Your task to perform on an android device: change text size in settings app Image 0: 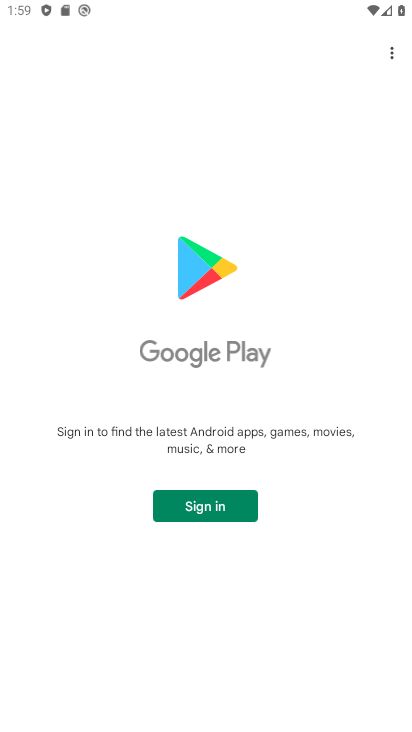
Step 0: press home button
Your task to perform on an android device: change text size in settings app Image 1: 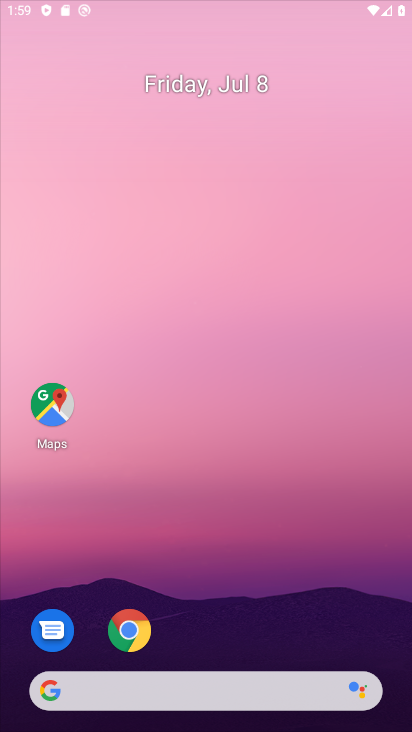
Step 1: drag from (354, 601) to (266, 117)
Your task to perform on an android device: change text size in settings app Image 2: 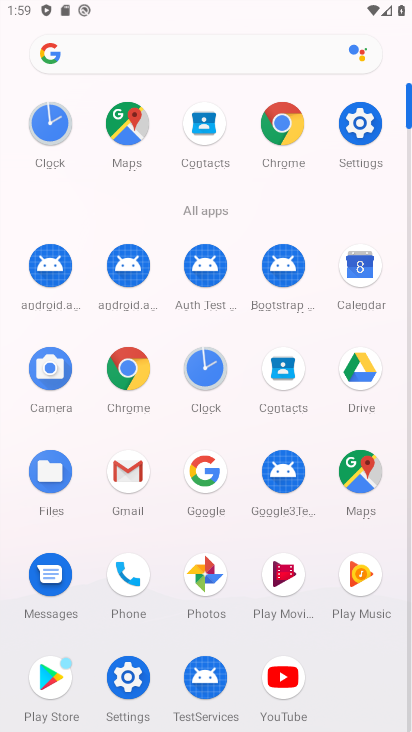
Step 2: click (366, 135)
Your task to perform on an android device: change text size in settings app Image 3: 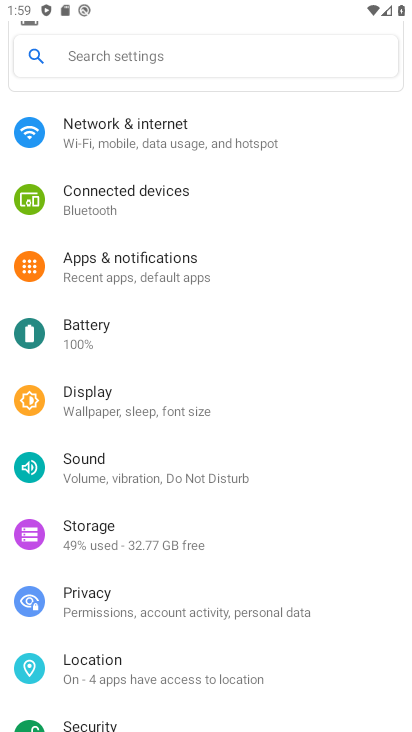
Step 3: drag from (209, 574) to (212, 129)
Your task to perform on an android device: change text size in settings app Image 4: 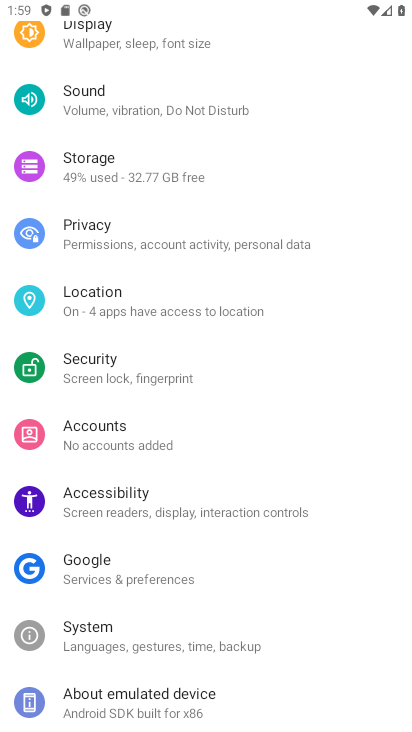
Step 4: drag from (182, 110) to (112, 637)
Your task to perform on an android device: change text size in settings app Image 5: 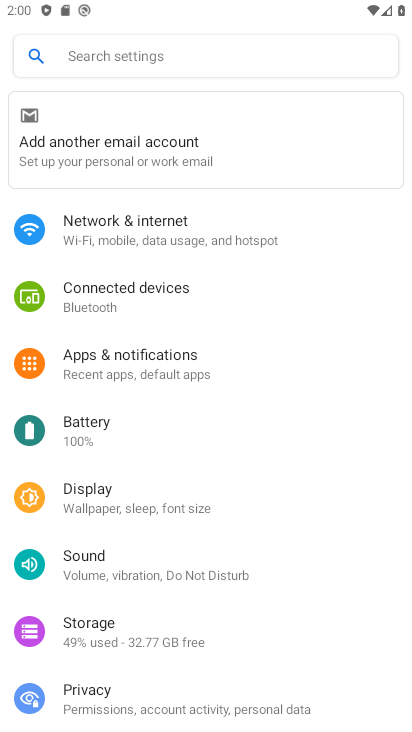
Step 5: drag from (275, 599) to (294, 218)
Your task to perform on an android device: change text size in settings app Image 6: 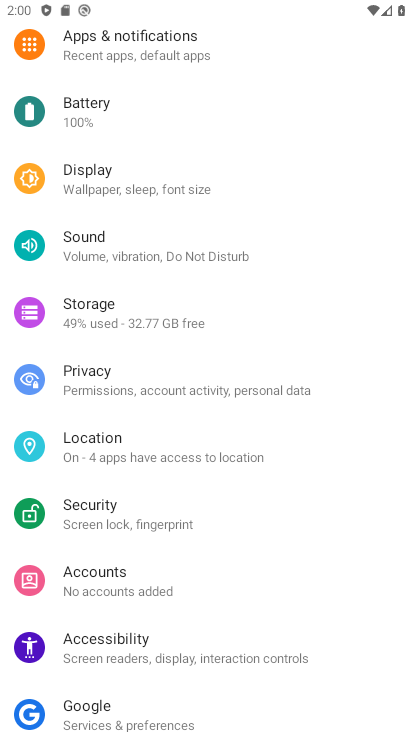
Step 6: click (181, 185)
Your task to perform on an android device: change text size in settings app Image 7: 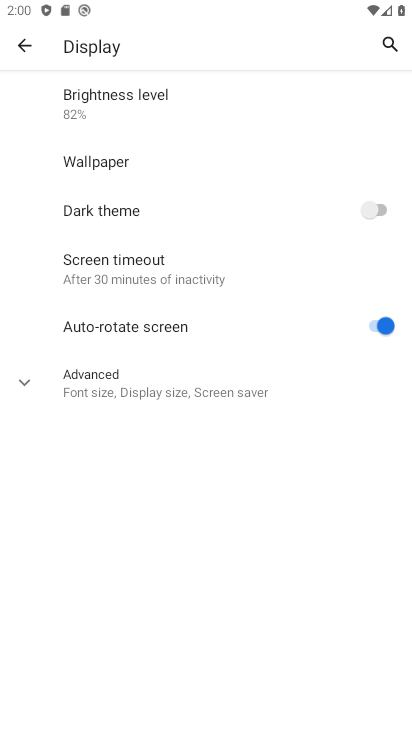
Step 7: click (125, 393)
Your task to perform on an android device: change text size in settings app Image 8: 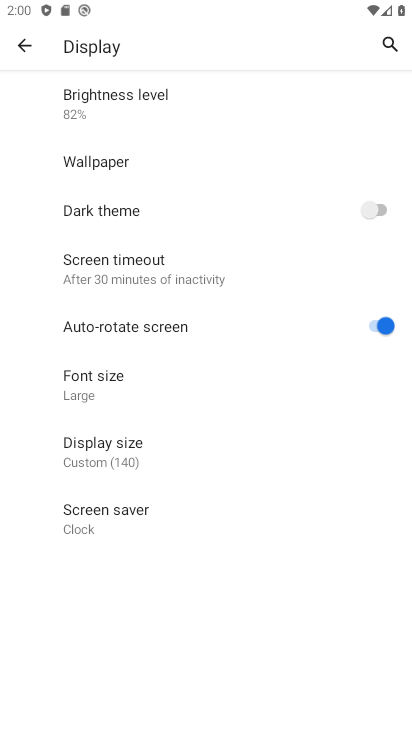
Step 8: click (125, 393)
Your task to perform on an android device: change text size in settings app Image 9: 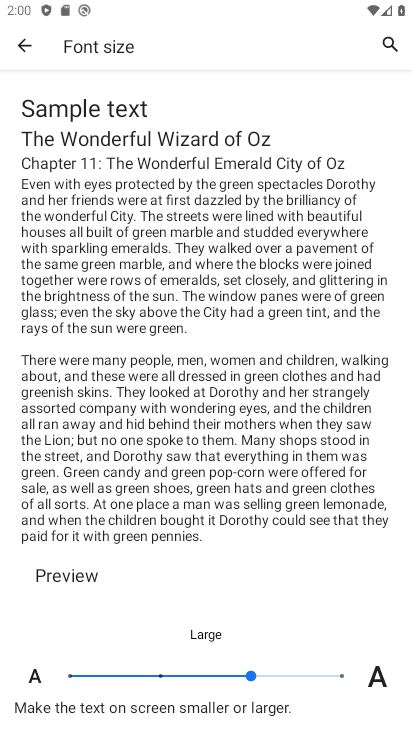
Step 9: click (72, 678)
Your task to perform on an android device: change text size in settings app Image 10: 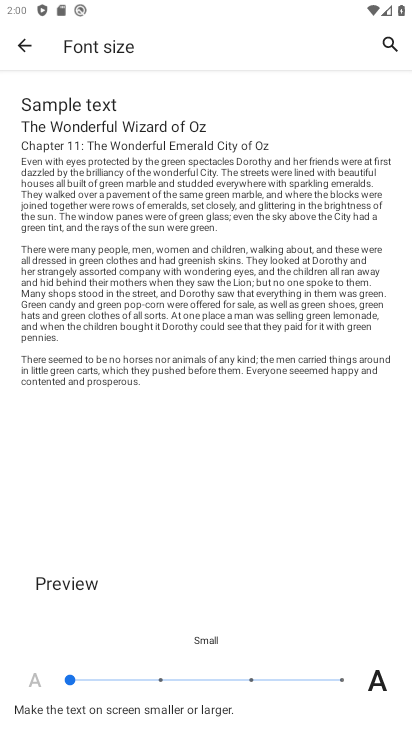
Step 10: task complete